Your task to perform on an android device: When is my next appointment? Image 0: 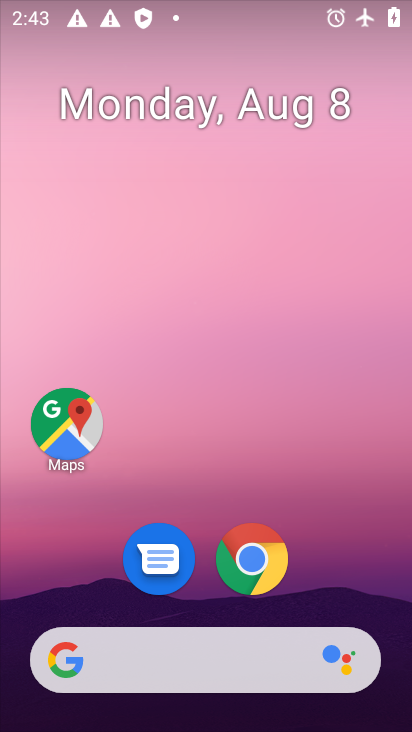
Step 0: drag from (183, 651) to (188, 101)
Your task to perform on an android device: When is my next appointment? Image 1: 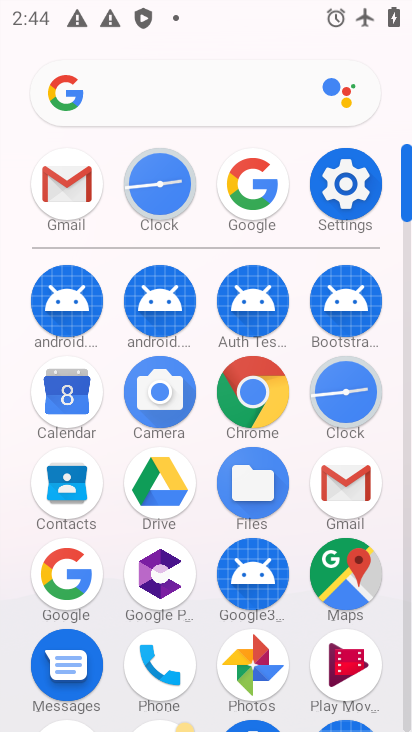
Step 1: click (68, 396)
Your task to perform on an android device: When is my next appointment? Image 2: 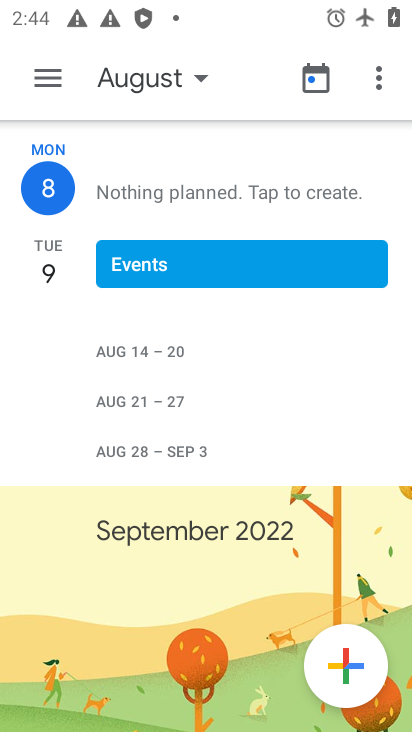
Step 2: click (196, 81)
Your task to perform on an android device: When is my next appointment? Image 3: 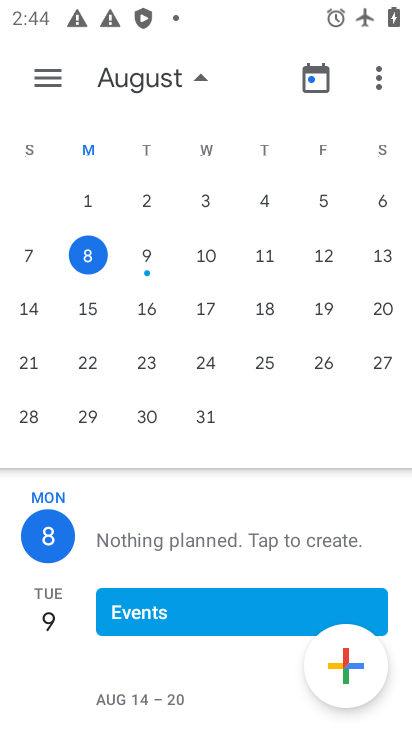
Step 3: click (145, 258)
Your task to perform on an android device: When is my next appointment? Image 4: 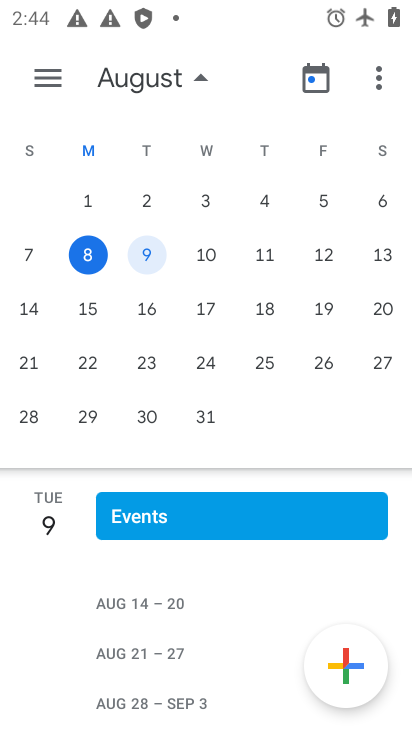
Step 4: click (46, 90)
Your task to perform on an android device: When is my next appointment? Image 5: 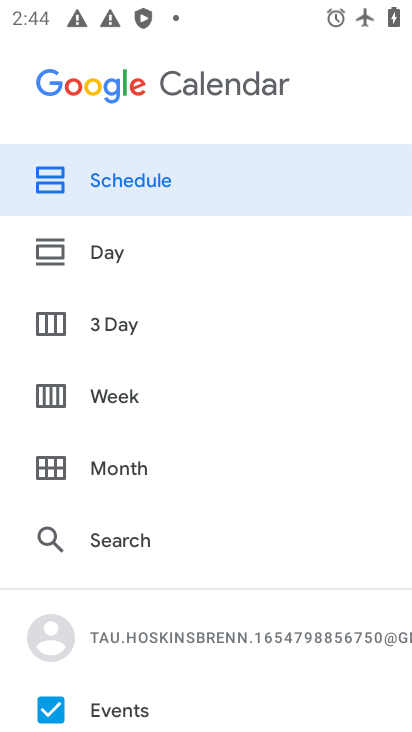
Step 5: click (78, 166)
Your task to perform on an android device: When is my next appointment? Image 6: 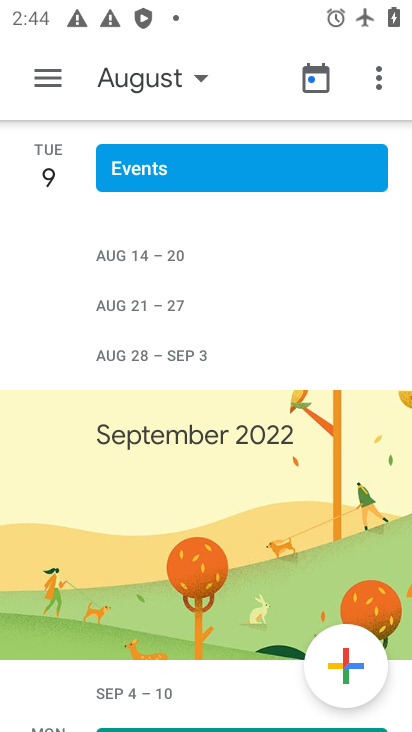
Step 6: task complete